Your task to perform on an android device: uninstall "NewsBreak: Local News & Alerts" Image 0: 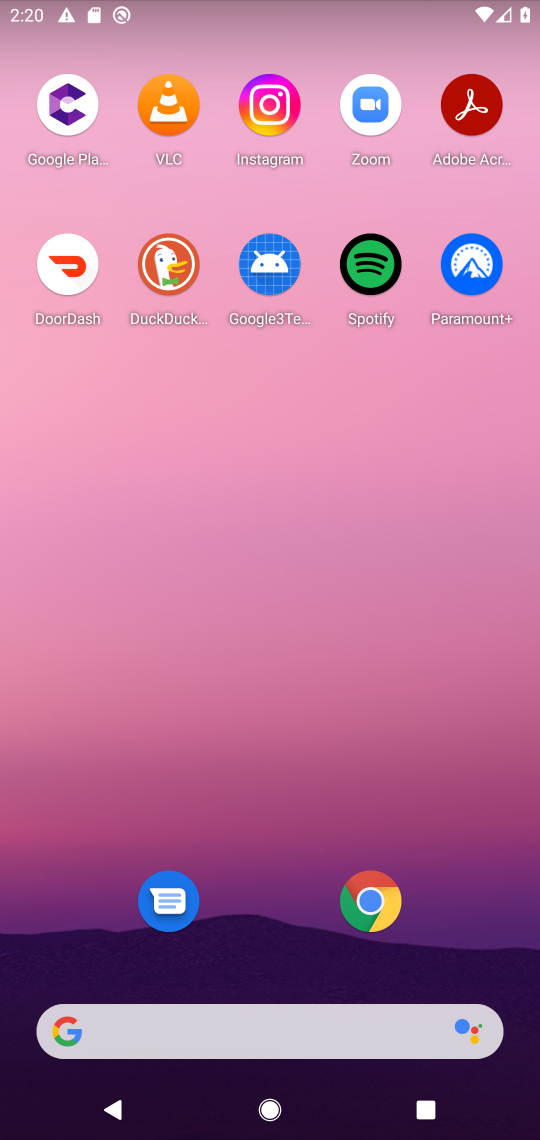
Step 0: drag from (282, 941) to (286, 158)
Your task to perform on an android device: uninstall "NewsBreak: Local News & Alerts" Image 1: 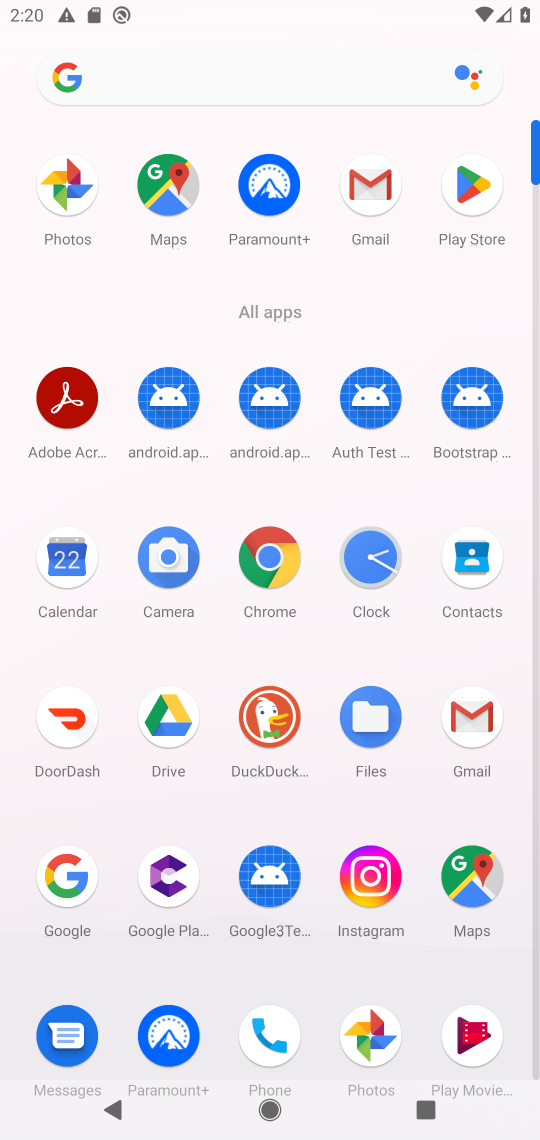
Step 1: drag from (218, 978) to (231, 393)
Your task to perform on an android device: uninstall "NewsBreak: Local News & Alerts" Image 2: 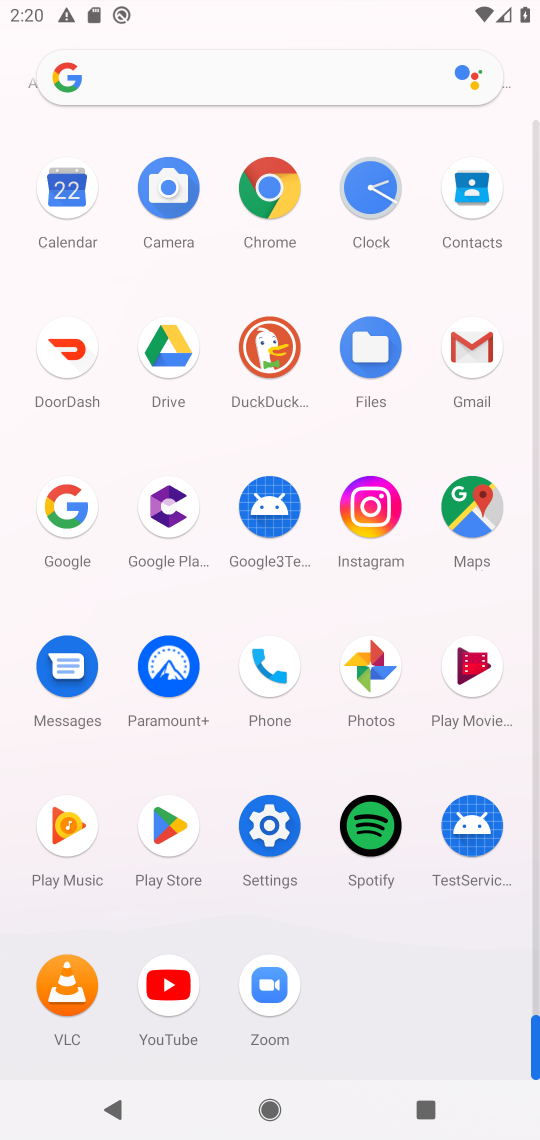
Step 2: click (170, 827)
Your task to perform on an android device: uninstall "NewsBreak: Local News & Alerts" Image 3: 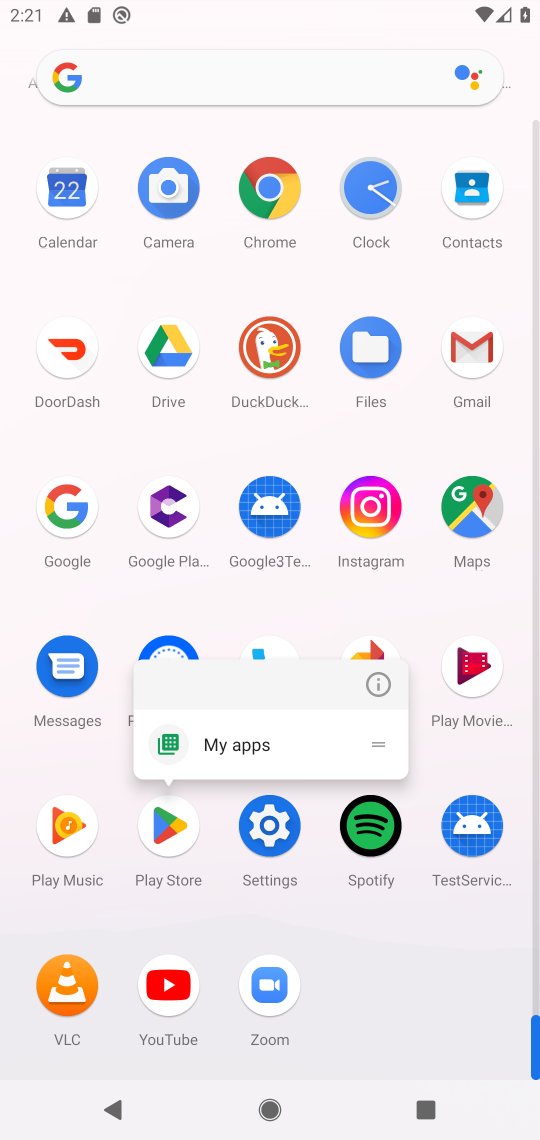
Step 3: click (174, 823)
Your task to perform on an android device: uninstall "NewsBreak: Local News & Alerts" Image 4: 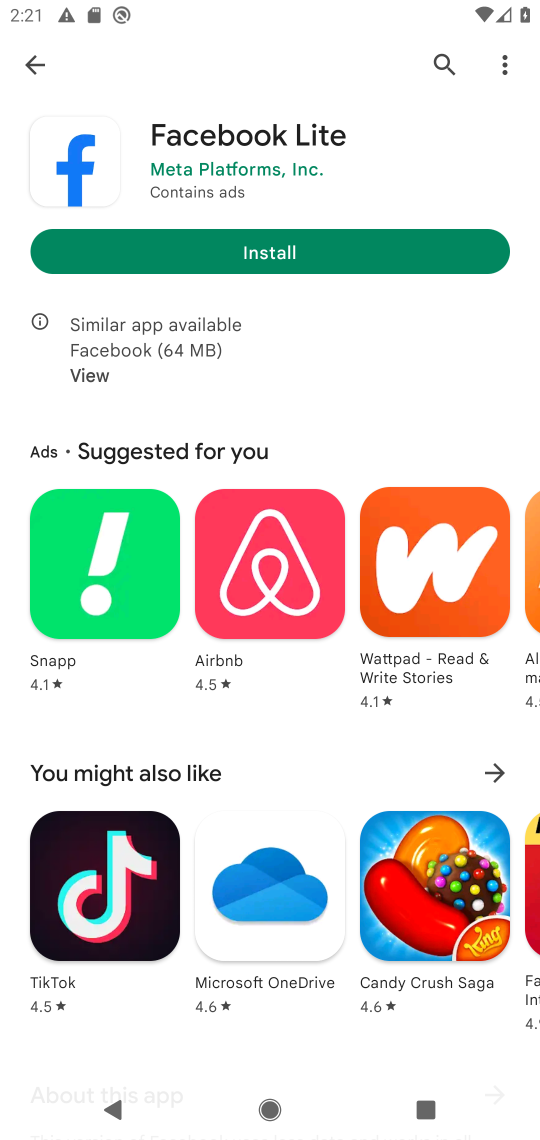
Step 4: click (433, 59)
Your task to perform on an android device: uninstall "NewsBreak: Local News & Alerts" Image 5: 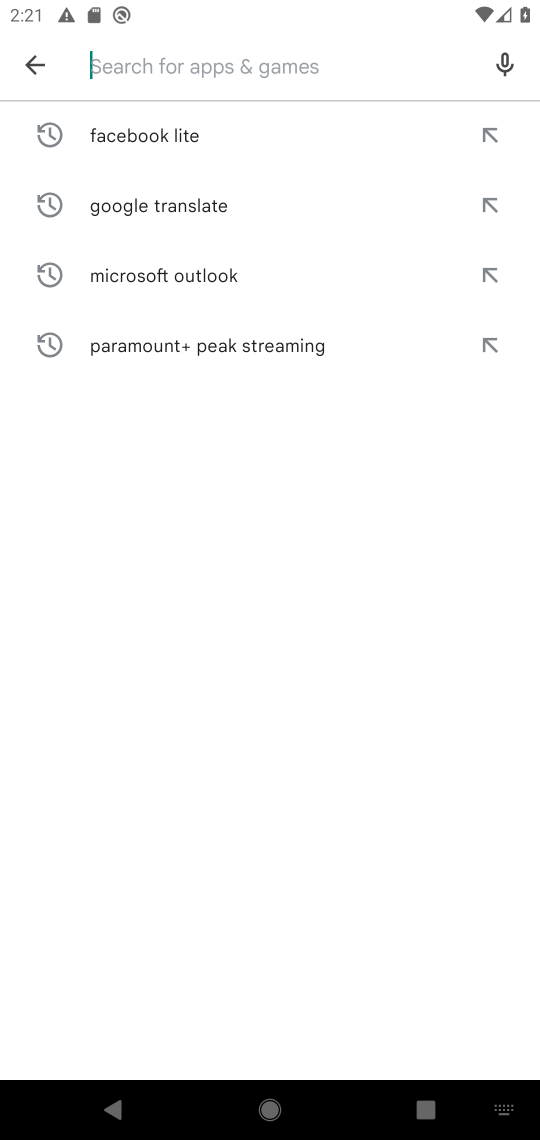
Step 5: type "NewsBreak: Local News & Alerts"
Your task to perform on an android device: uninstall "NewsBreak: Local News & Alerts" Image 6: 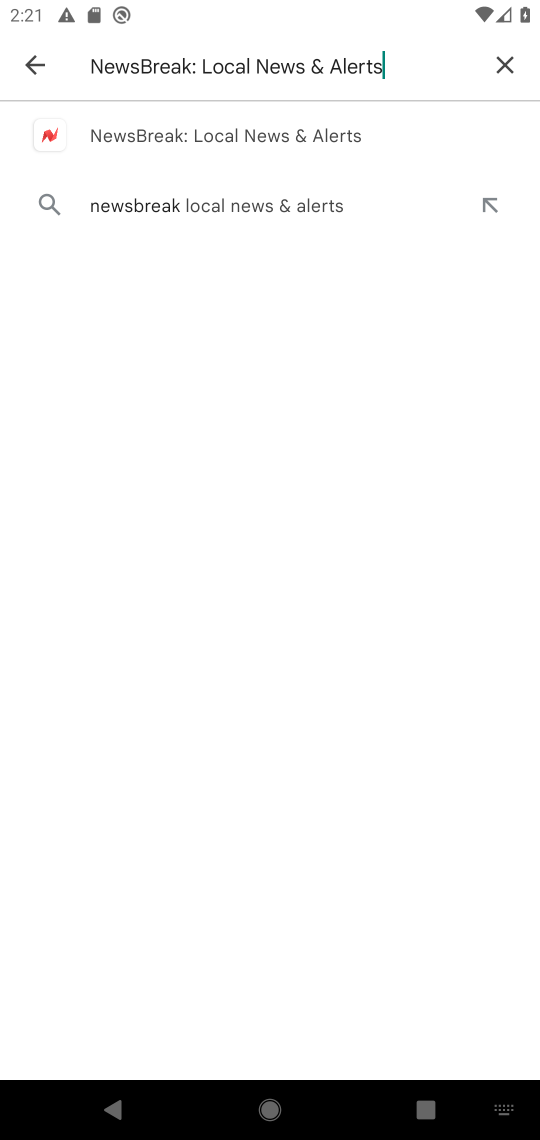
Step 6: click (163, 127)
Your task to perform on an android device: uninstall "NewsBreak: Local News & Alerts" Image 7: 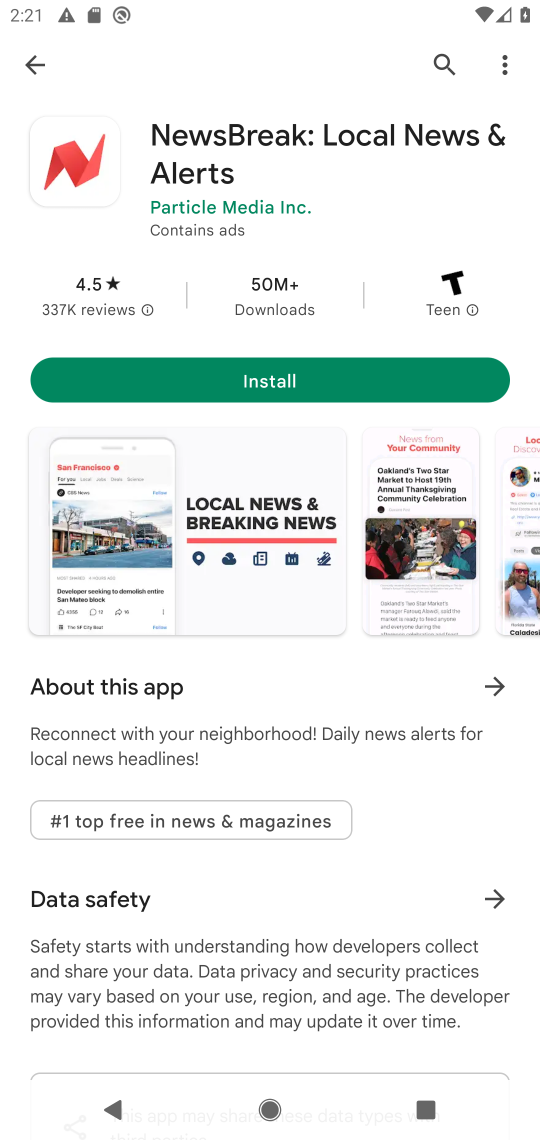
Step 7: task complete